Your task to perform on an android device: Open internet settings Image 0: 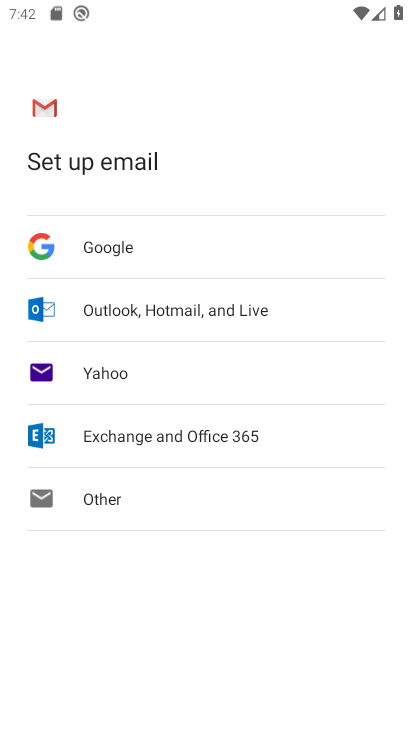
Step 0: press home button
Your task to perform on an android device: Open internet settings Image 1: 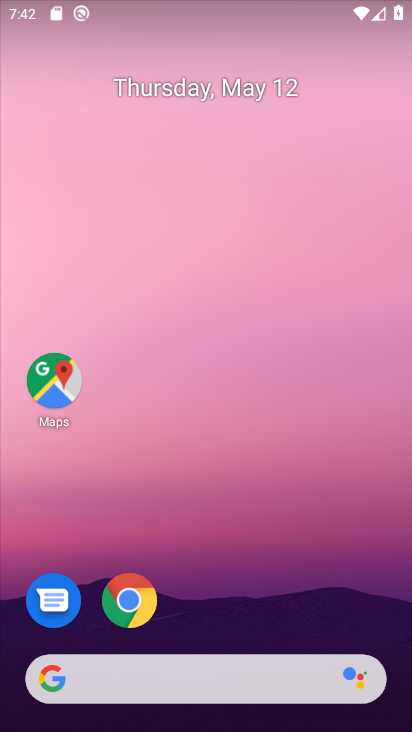
Step 1: drag from (227, 628) to (218, 103)
Your task to perform on an android device: Open internet settings Image 2: 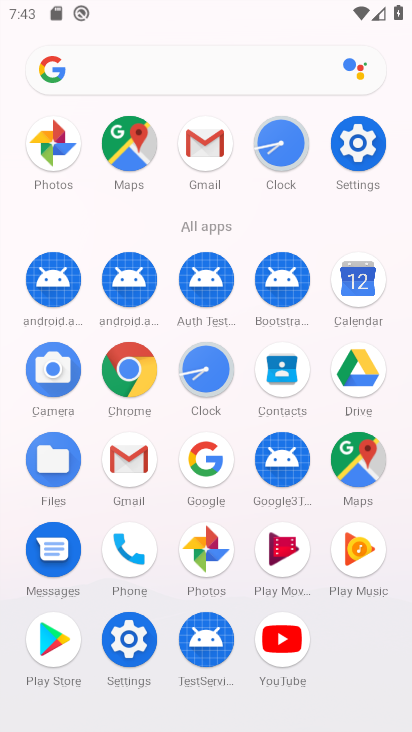
Step 2: click (374, 146)
Your task to perform on an android device: Open internet settings Image 3: 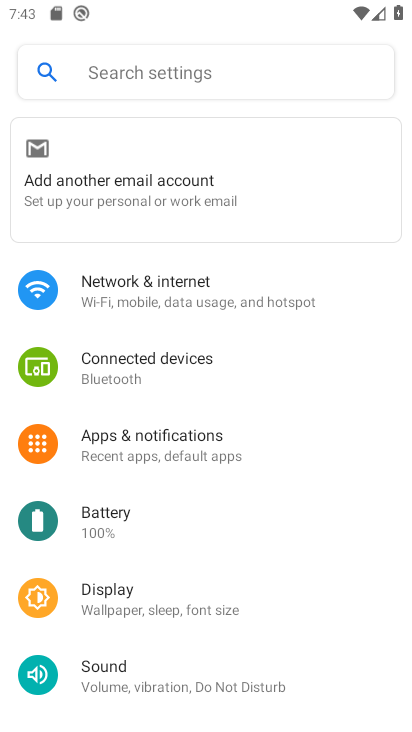
Step 3: click (162, 296)
Your task to perform on an android device: Open internet settings Image 4: 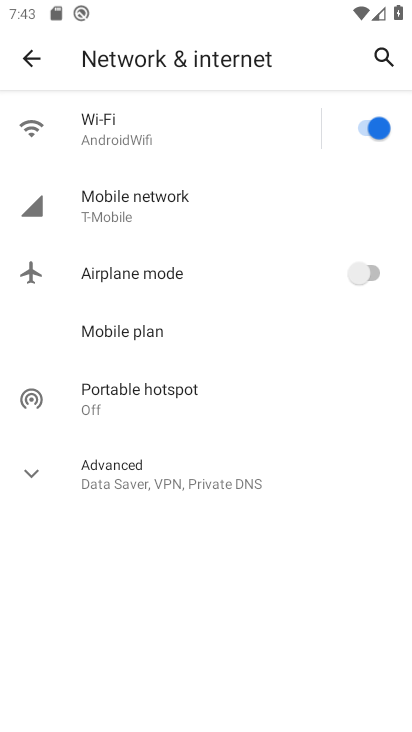
Step 4: click (138, 195)
Your task to perform on an android device: Open internet settings Image 5: 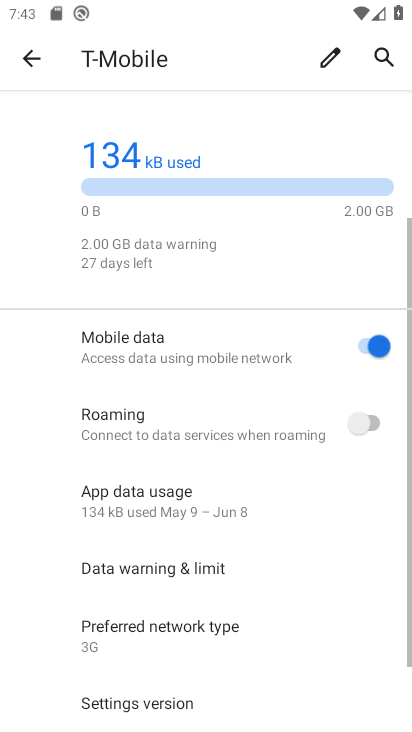
Step 5: task complete